Your task to perform on an android device: see tabs open on other devices in the chrome app Image 0: 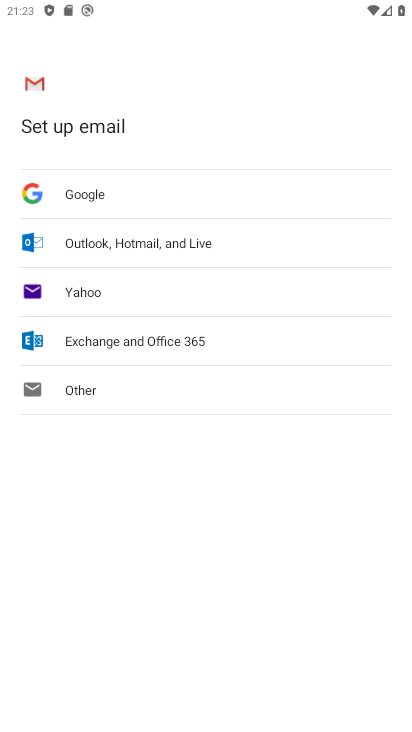
Step 0: press home button
Your task to perform on an android device: see tabs open on other devices in the chrome app Image 1: 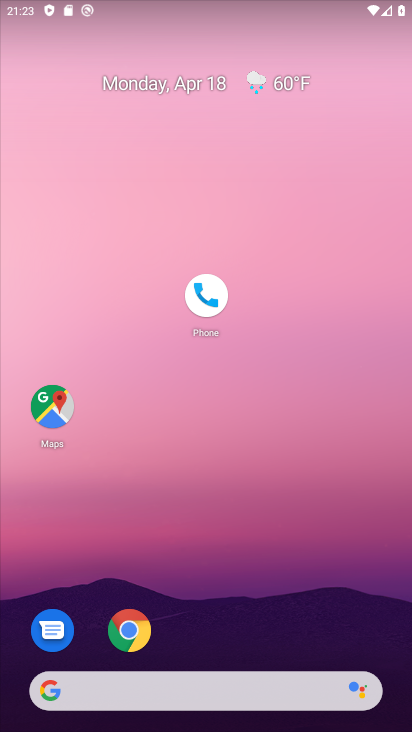
Step 1: drag from (268, 628) to (314, 40)
Your task to perform on an android device: see tabs open on other devices in the chrome app Image 2: 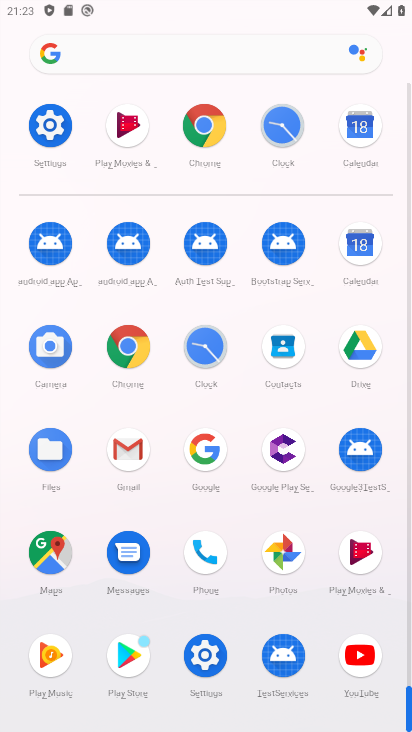
Step 2: click (200, 124)
Your task to perform on an android device: see tabs open on other devices in the chrome app Image 3: 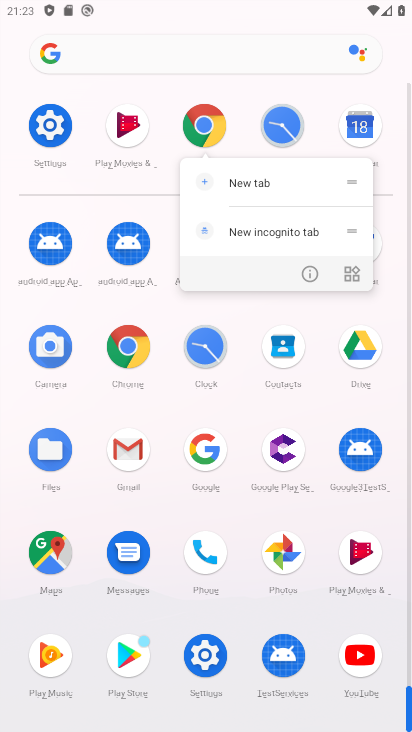
Step 3: click (204, 128)
Your task to perform on an android device: see tabs open on other devices in the chrome app Image 4: 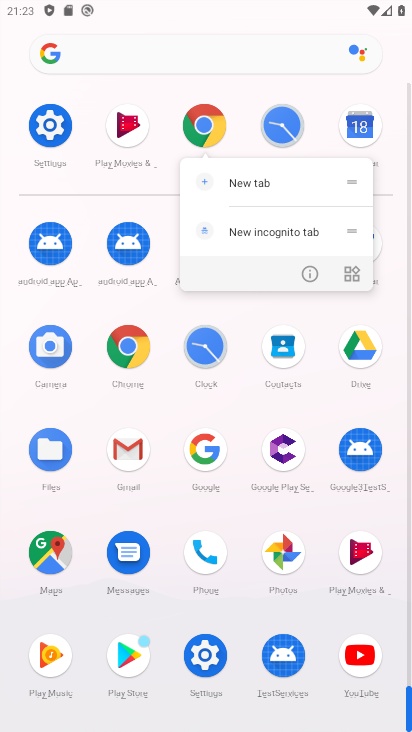
Step 4: click (203, 127)
Your task to perform on an android device: see tabs open on other devices in the chrome app Image 5: 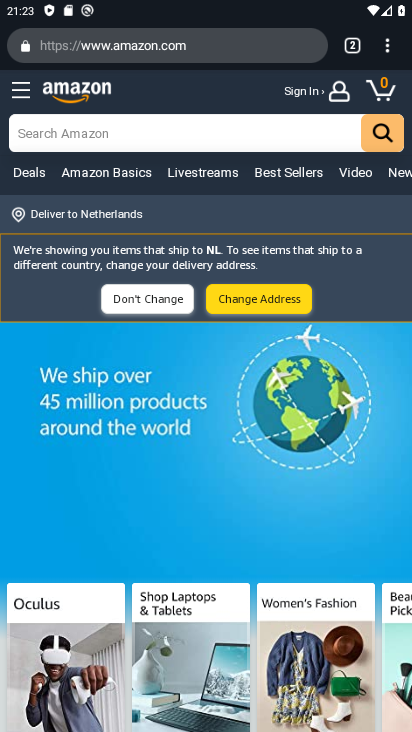
Step 5: task complete